Your task to perform on an android device: Search for Italian restaurants on Maps Image 0: 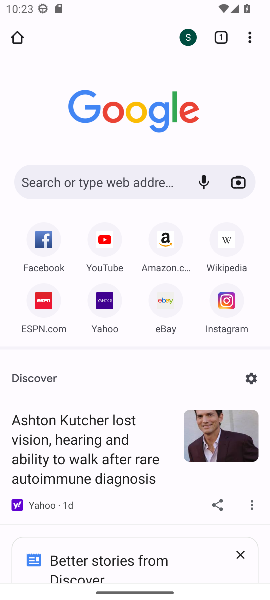
Step 0: press home button
Your task to perform on an android device: Search for Italian restaurants on Maps Image 1: 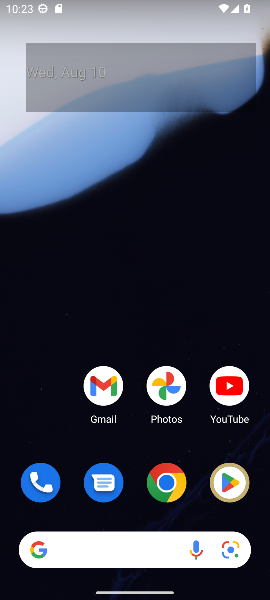
Step 1: drag from (105, 270) to (103, 75)
Your task to perform on an android device: Search for Italian restaurants on Maps Image 2: 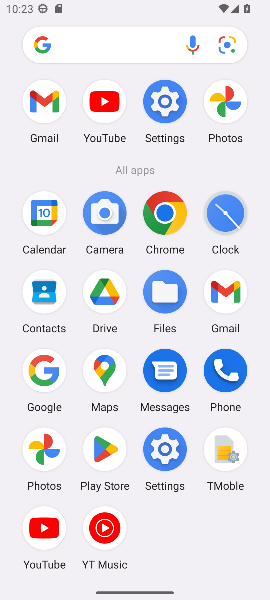
Step 2: click (108, 381)
Your task to perform on an android device: Search for Italian restaurants on Maps Image 3: 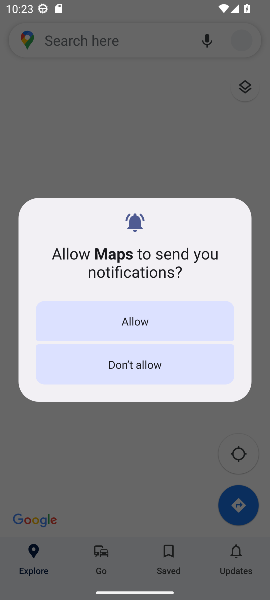
Step 3: click (136, 327)
Your task to perform on an android device: Search for Italian restaurants on Maps Image 4: 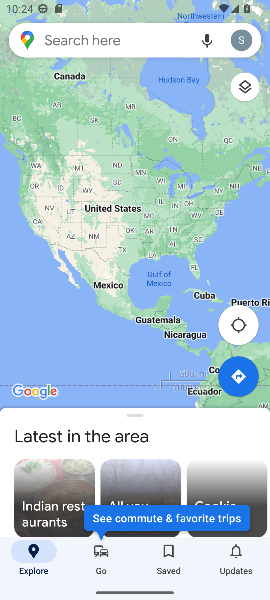
Step 4: click (118, 39)
Your task to perform on an android device: Search for Italian restaurants on Maps Image 5: 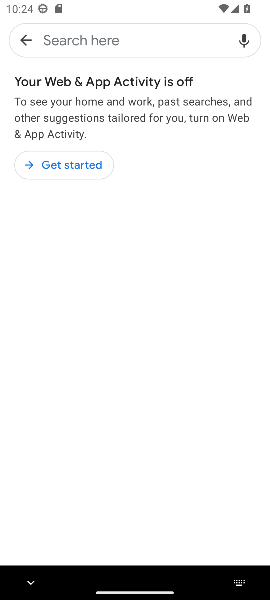
Step 5: type "Italian restaurants"
Your task to perform on an android device: Search for Italian restaurants on Maps Image 6: 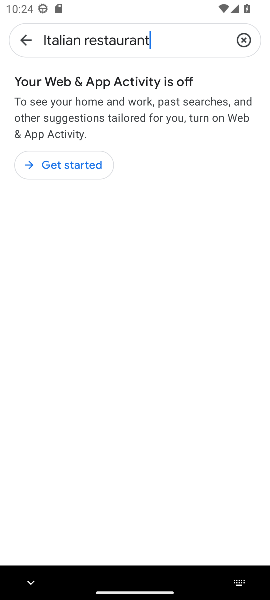
Step 6: type ""
Your task to perform on an android device: Search for Italian restaurants on Maps Image 7: 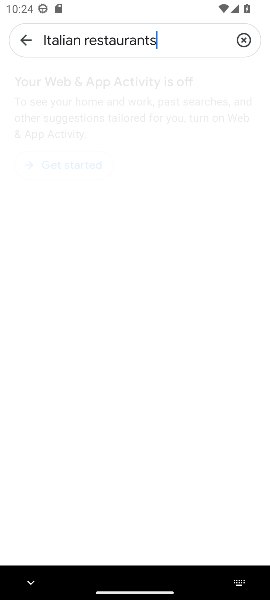
Step 7: press enter
Your task to perform on an android device: Search for Italian restaurants on Maps Image 8: 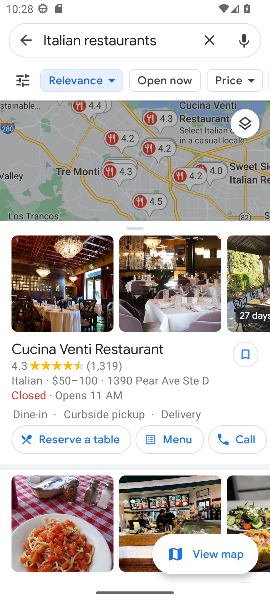
Step 8: task complete